Your task to perform on an android device: turn off airplane mode Image 0: 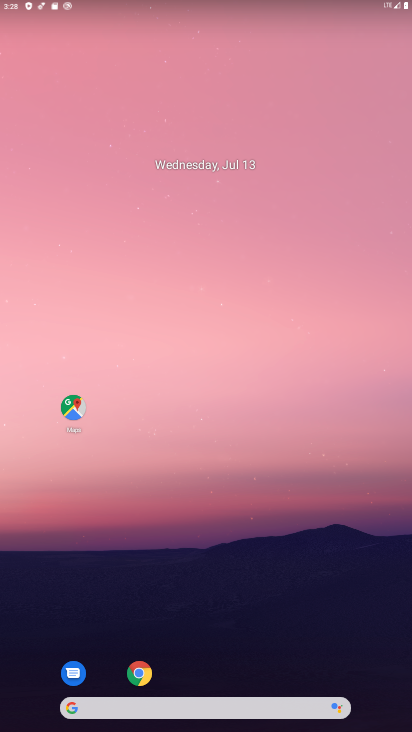
Step 0: drag from (185, 722) to (176, 136)
Your task to perform on an android device: turn off airplane mode Image 1: 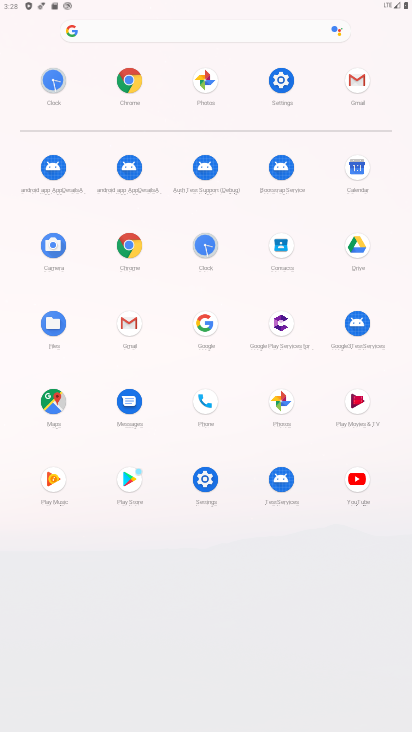
Step 1: click (281, 84)
Your task to perform on an android device: turn off airplane mode Image 2: 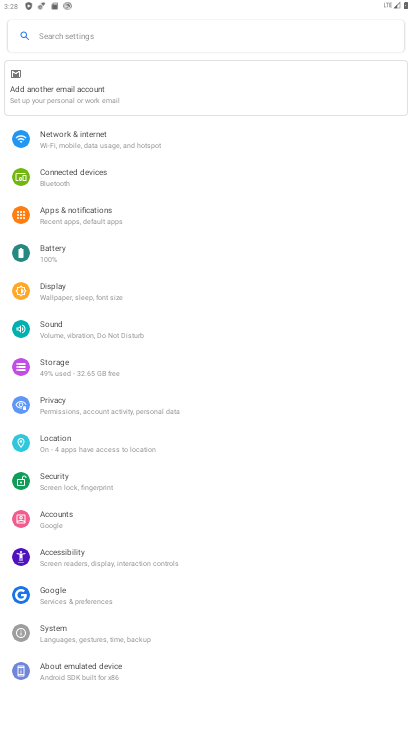
Step 2: click (87, 139)
Your task to perform on an android device: turn off airplane mode Image 3: 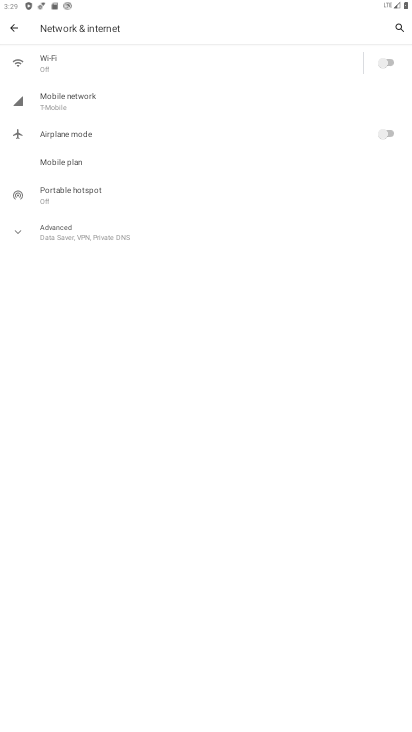
Step 3: task complete